Your task to perform on an android device: Look up the best rated coffee maker on Lowe's. Image 0: 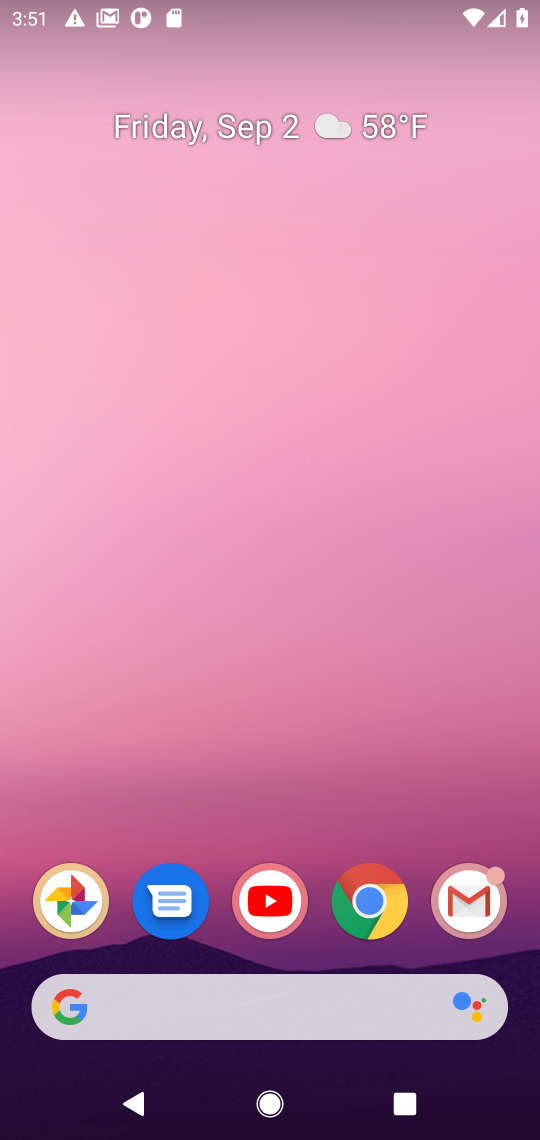
Step 0: click (485, 278)
Your task to perform on an android device: Look up the best rated coffee maker on Lowe's. Image 1: 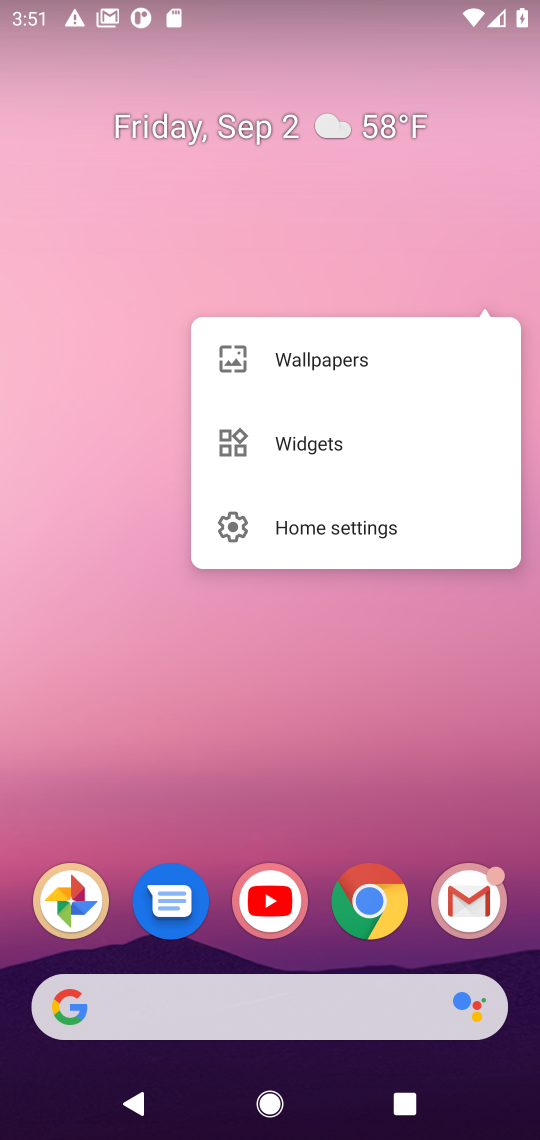
Step 1: click (288, 756)
Your task to perform on an android device: Look up the best rated coffee maker on Lowe's. Image 2: 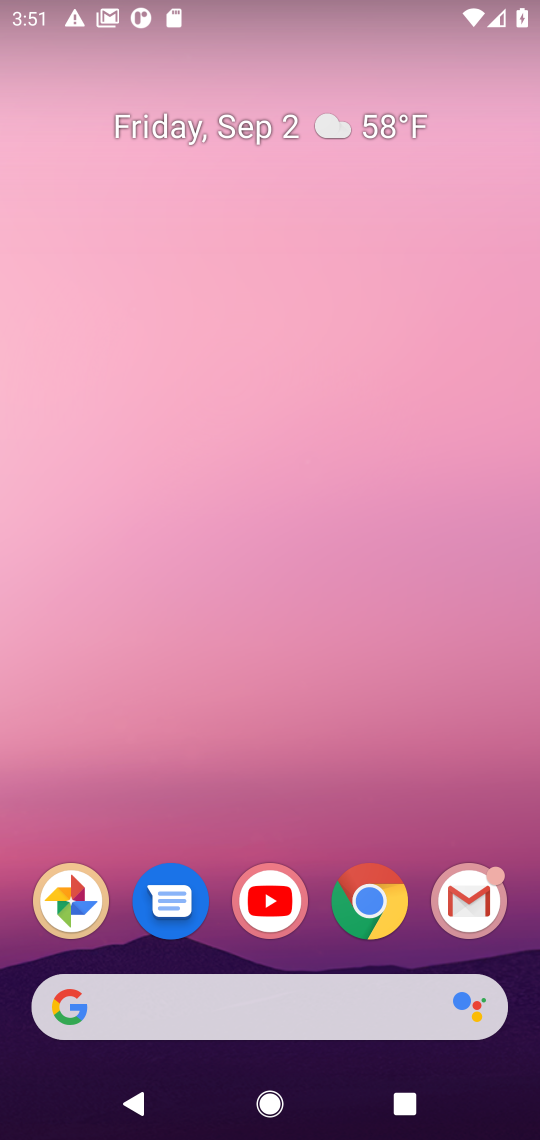
Step 2: drag from (322, 804) to (396, 24)
Your task to perform on an android device: Look up the best rated coffee maker on Lowe's. Image 3: 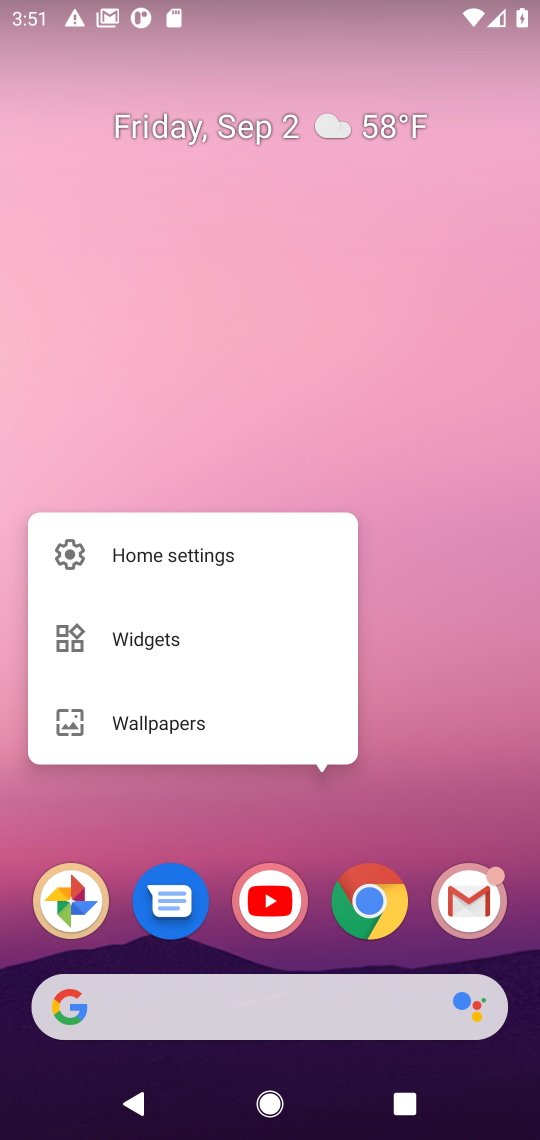
Step 3: click (430, 816)
Your task to perform on an android device: Look up the best rated coffee maker on Lowe's. Image 4: 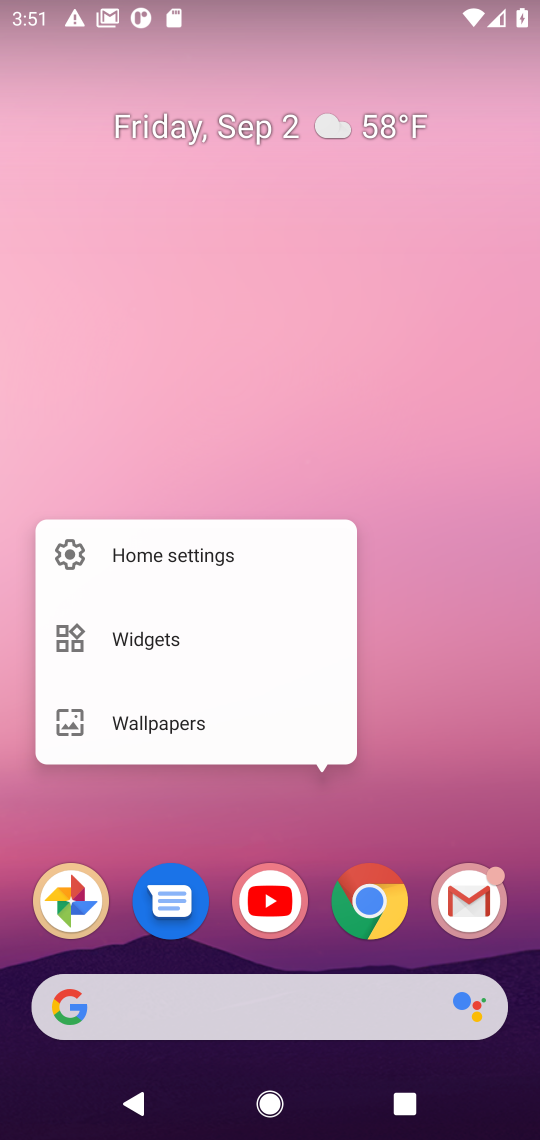
Step 4: click (426, 813)
Your task to perform on an android device: Look up the best rated coffee maker on Lowe's. Image 5: 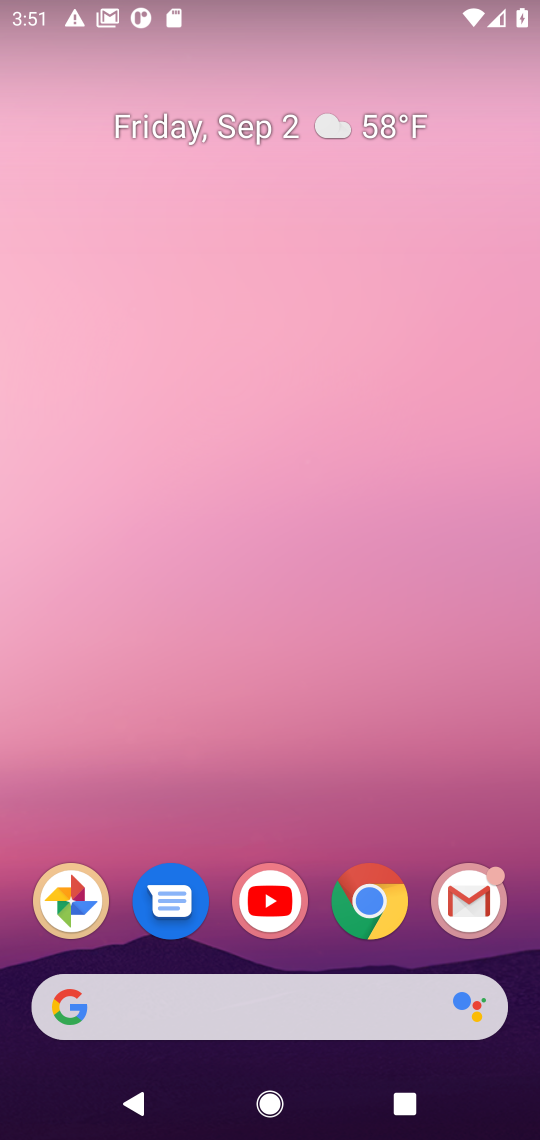
Step 5: drag from (348, 418) to (304, 8)
Your task to perform on an android device: Look up the best rated coffee maker on Lowe's. Image 6: 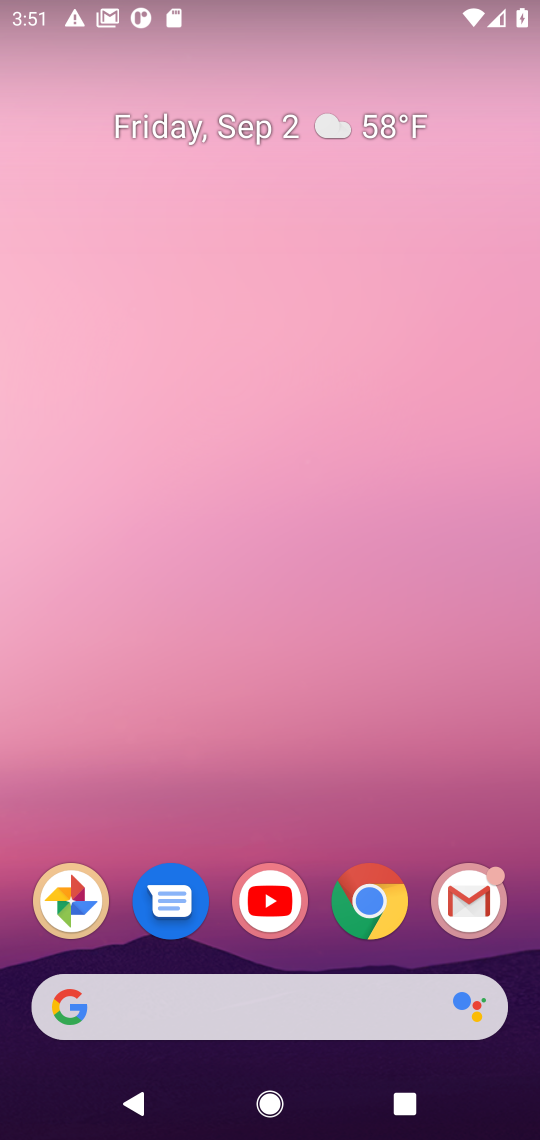
Step 6: drag from (210, 553) to (239, 35)
Your task to perform on an android device: Look up the best rated coffee maker on Lowe's. Image 7: 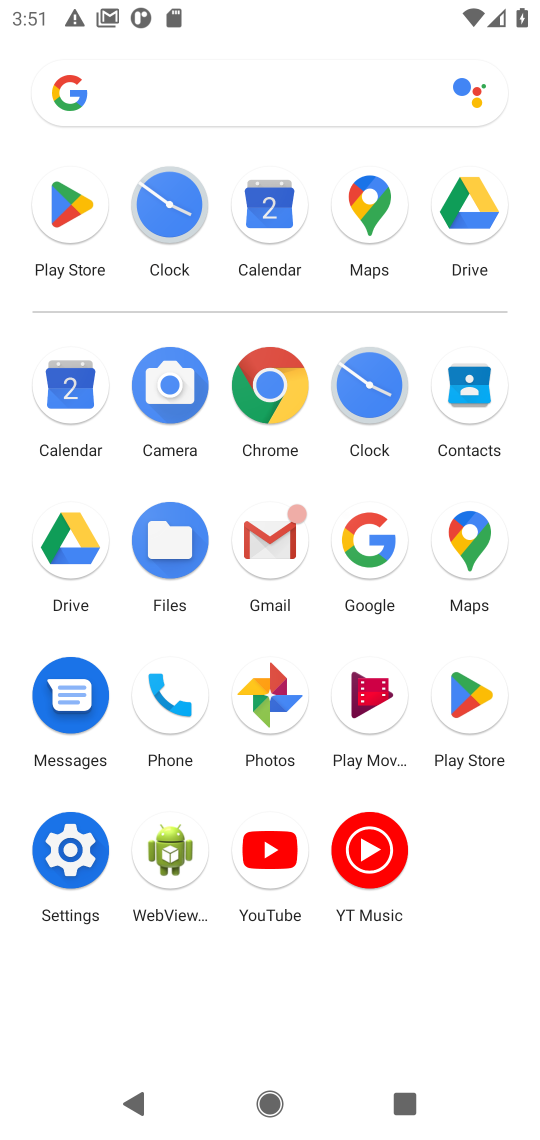
Step 7: click (273, 385)
Your task to perform on an android device: Look up the best rated coffee maker on Lowe's. Image 8: 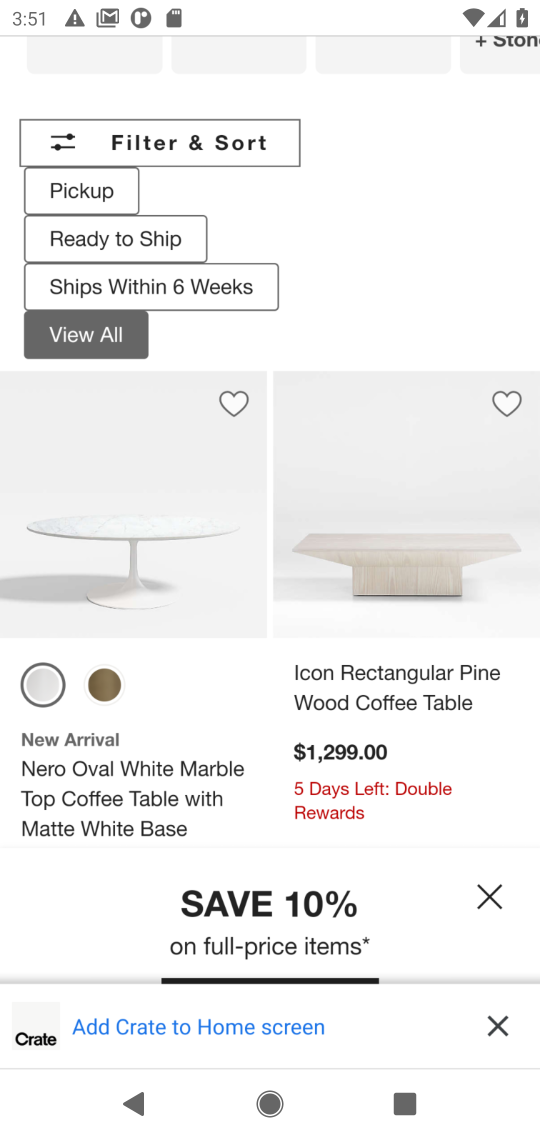
Step 8: drag from (395, 133) to (384, 770)
Your task to perform on an android device: Look up the best rated coffee maker on Lowe's. Image 9: 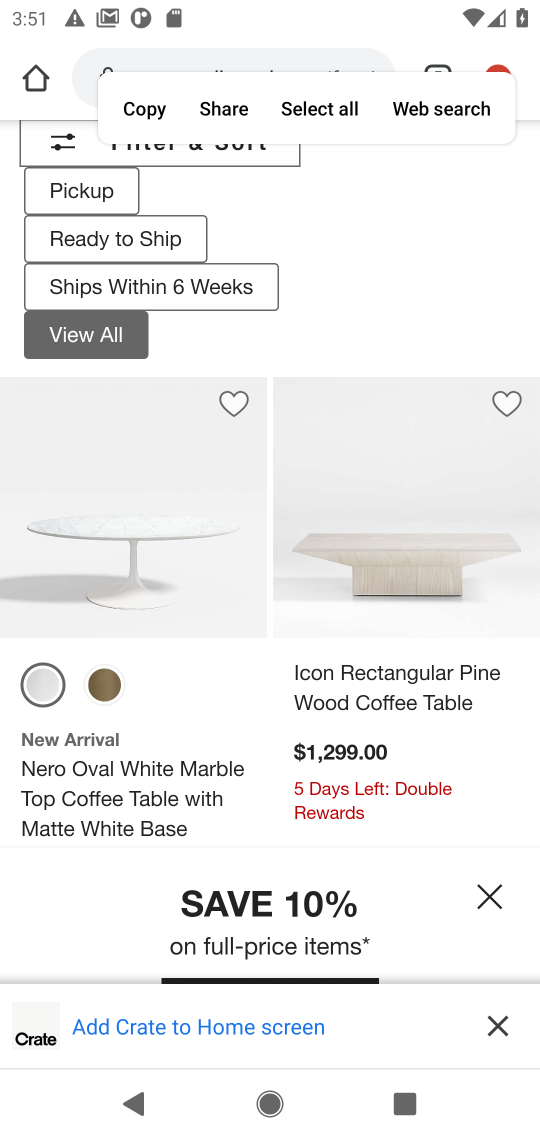
Step 9: click (245, 344)
Your task to perform on an android device: Look up the best rated coffee maker on Lowe's. Image 10: 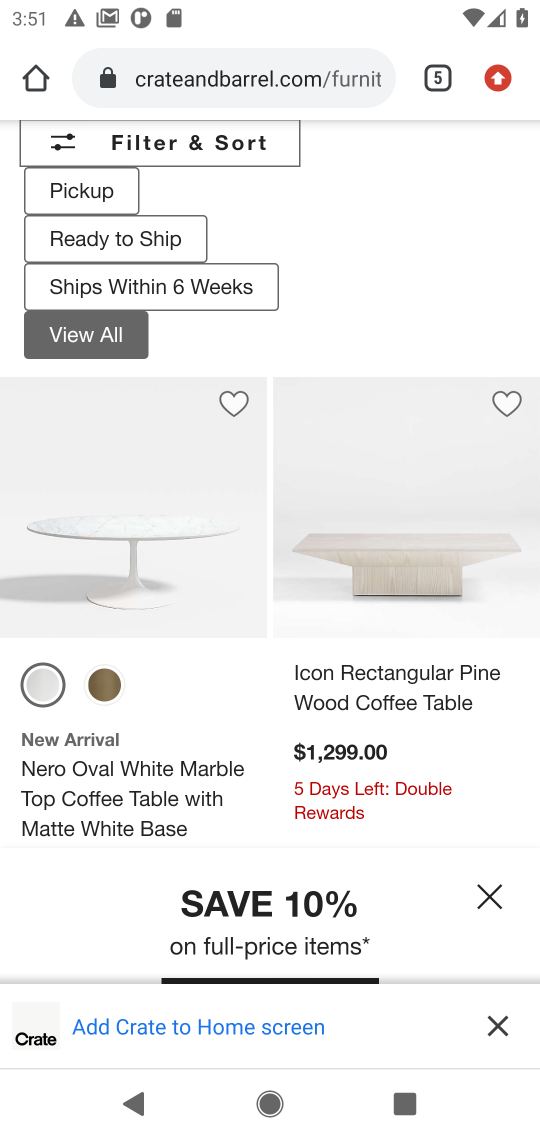
Step 10: click (301, 54)
Your task to perform on an android device: Look up the best rated coffee maker on Lowe's. Image 11: 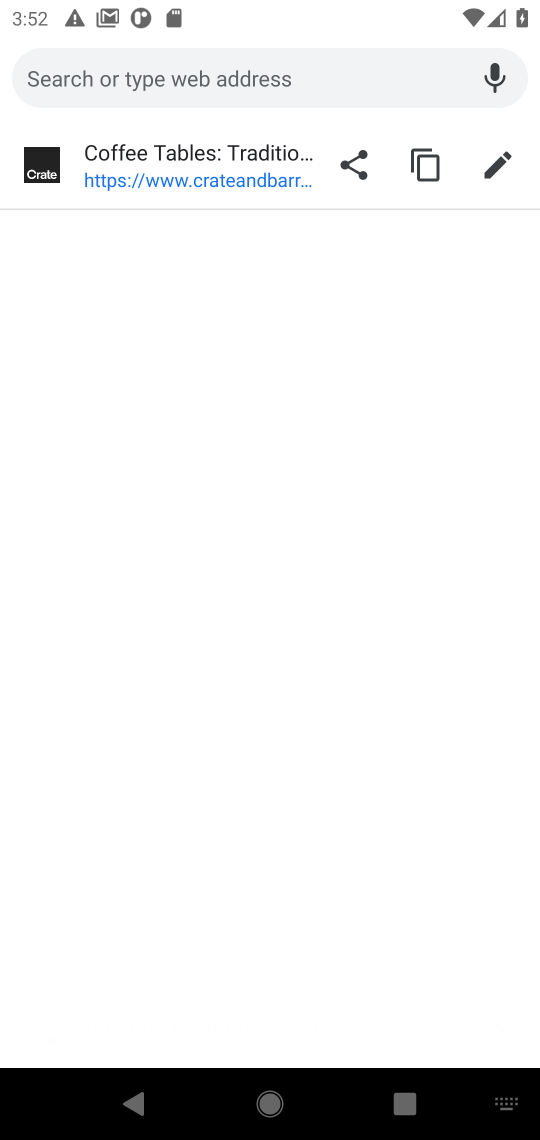
Step 11: type "best rated coffee maker on Lowe's"
Your task to perform on an android device: Look up the best rated coffee maker on Lowe's. Image 12: 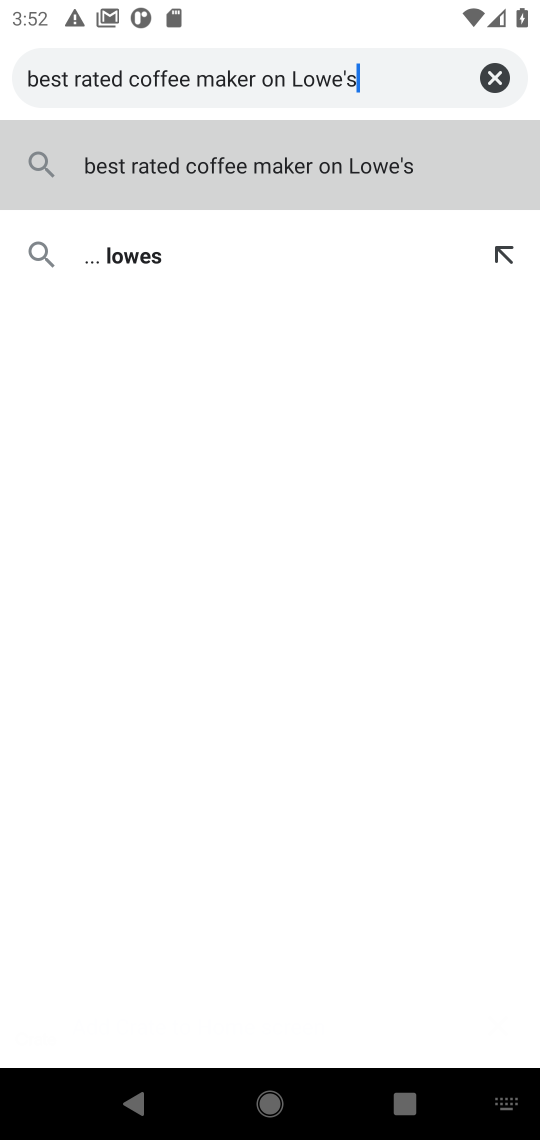
Step 12: press enter
Your task to perform on an android device: Look up the best rated coffee maker on Lowe's. Image 13: 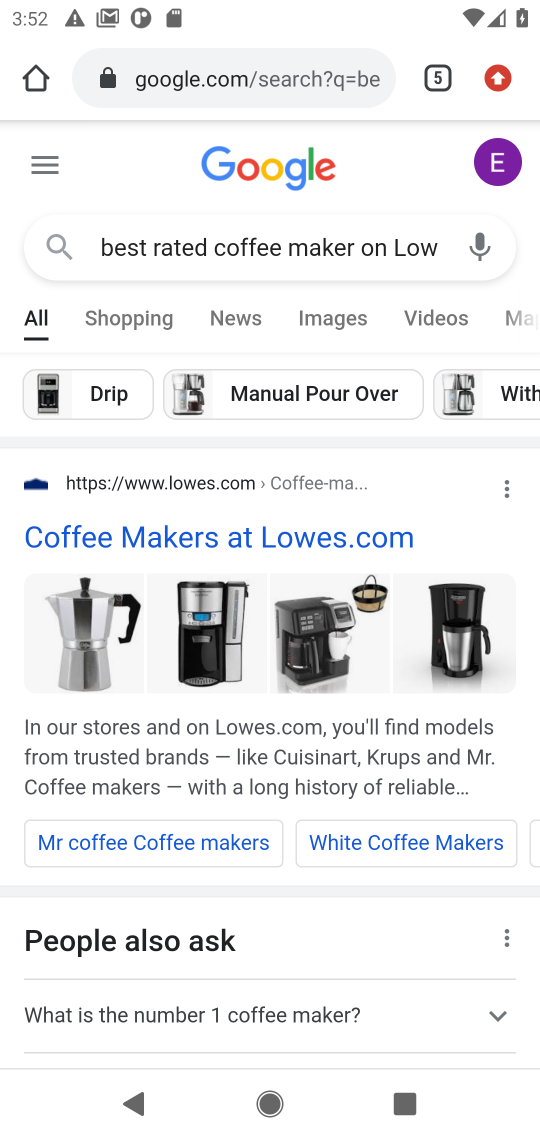
Step 13: click (285, 539)
Your task to perform on an android device: Look up the best rated coffee maker on Lowe's. Image 14: 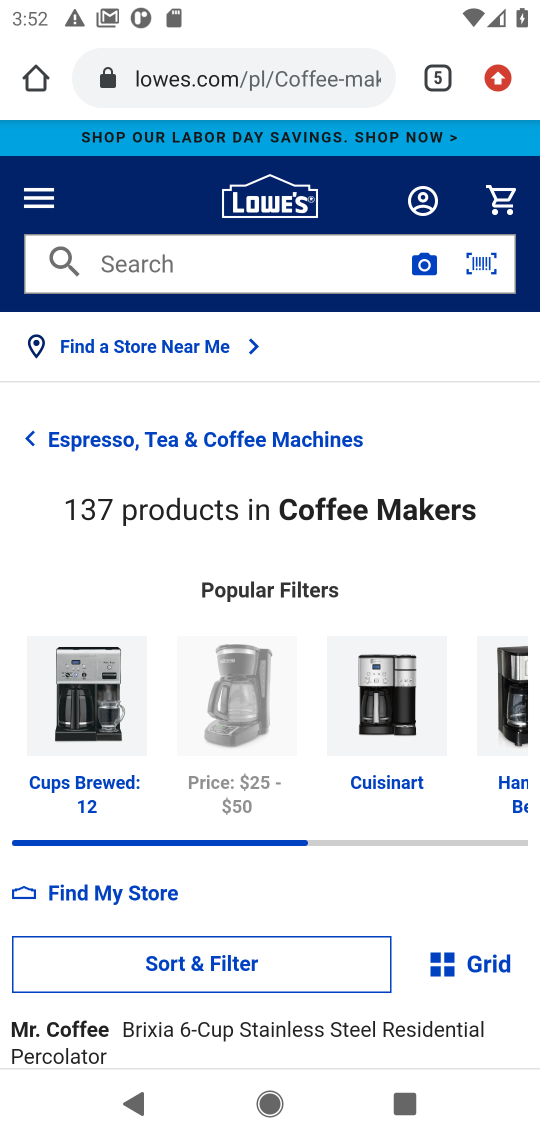
Step 14: task complete